Your task to perform on an android device: Do I have any events tomorrow? Image 0: 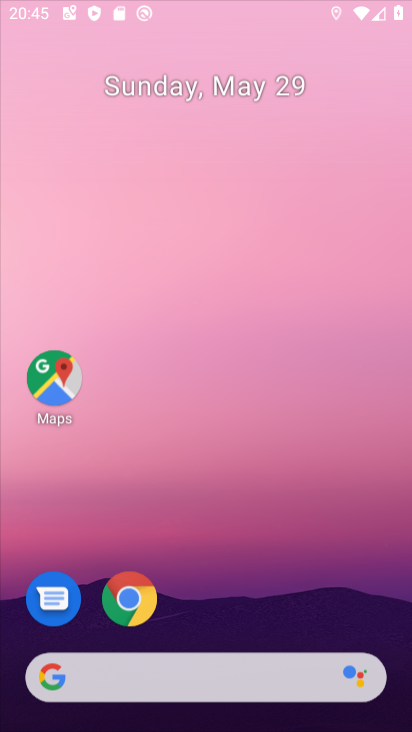
Step 0: drag from (300, 573) to (279, 187)
Your task to perform on an android device: Do I have any events tomorrow? Image 1: 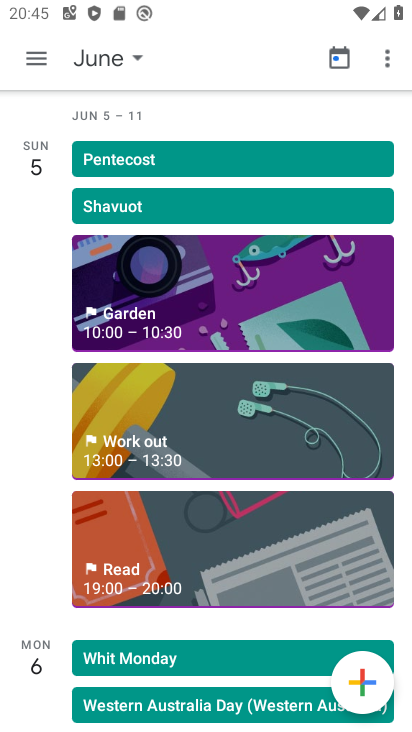
Step 1: click (94, 58)
Your task to perform on an android device: Do I have any events tomorrow? Image 2: 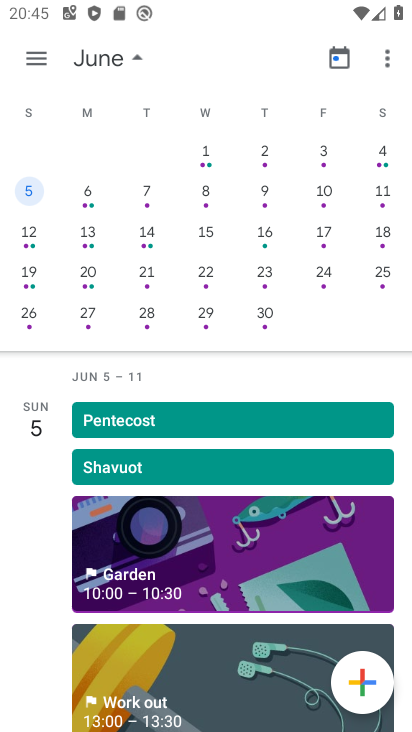
Step 2: drag from (89, 246) to (339, 232)
Your task to perform on an android device: Do I have any events tomorrow? Image 3: 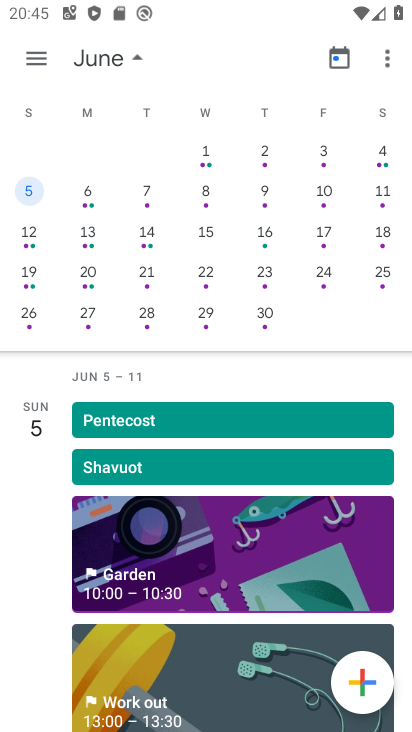
Step 3: drag from (58, 248) to (346, 240)
Your task to perform on an android device: Do I have any events tomorrow? Image 4: 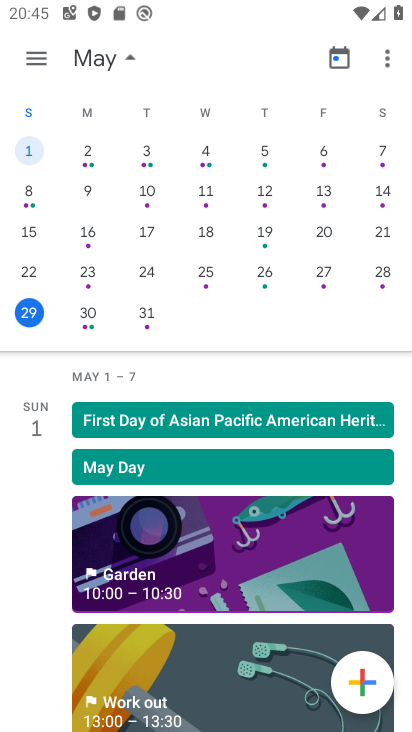
Step 4: click (84, 315)
Your task to perform on an android device: Do I have any events tomorrow? Image 5: 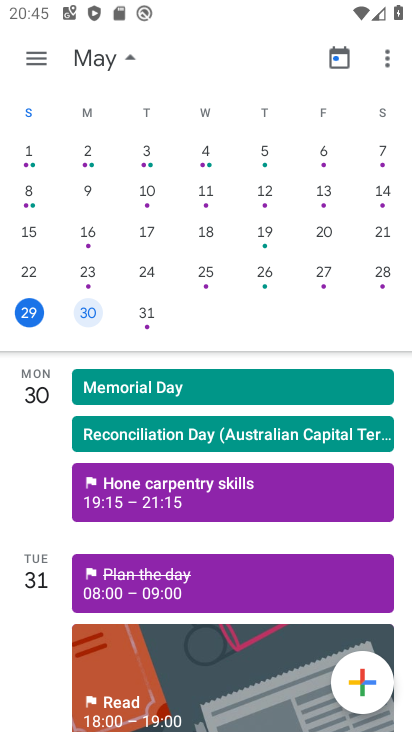
Step 5: task complete